Your task to perform on an android device: open device folders in google photos Image 0: 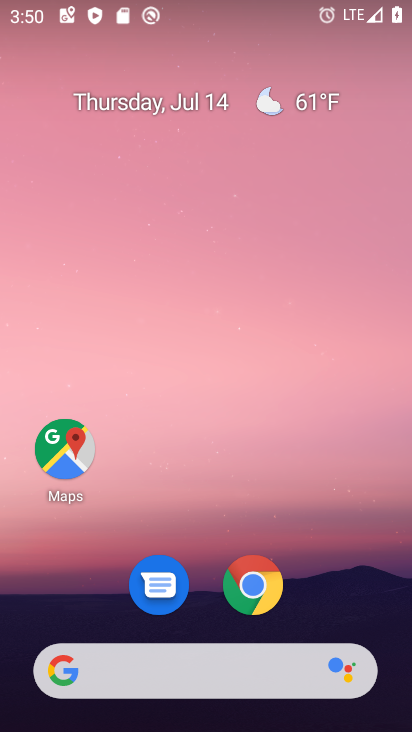
Step 0: drag from (344, 581) to (315, 48)
Your task to perform on an android device: open device folders in google photos Image 1: 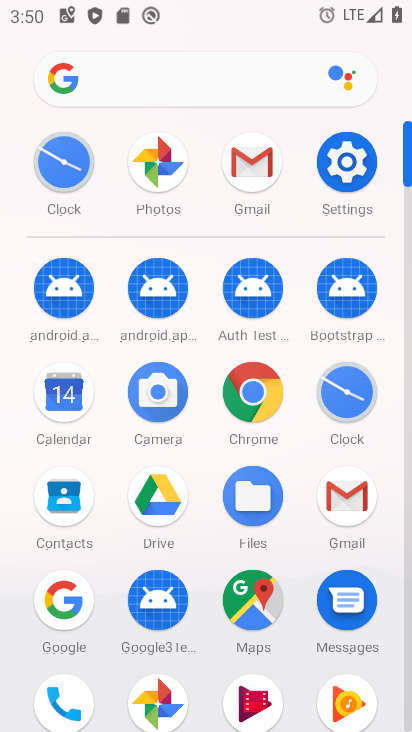
Step 1: click (158, 152)
Your task to perform on an android device: open device folders in google photos Image 2: 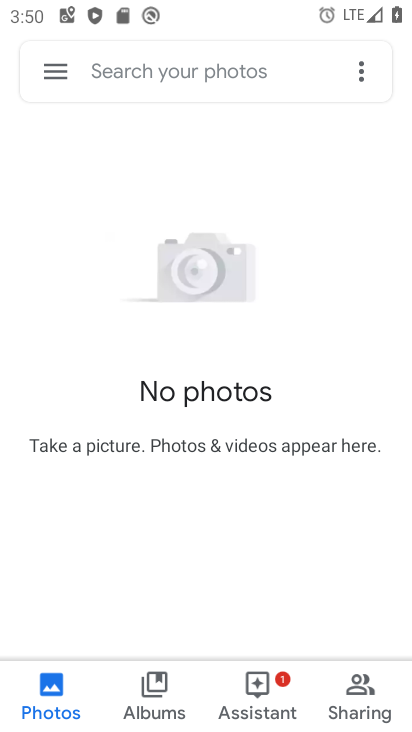
Step 2: click (50, 69)
Your task to perform on an android device: open device folders in google photos Image 3: 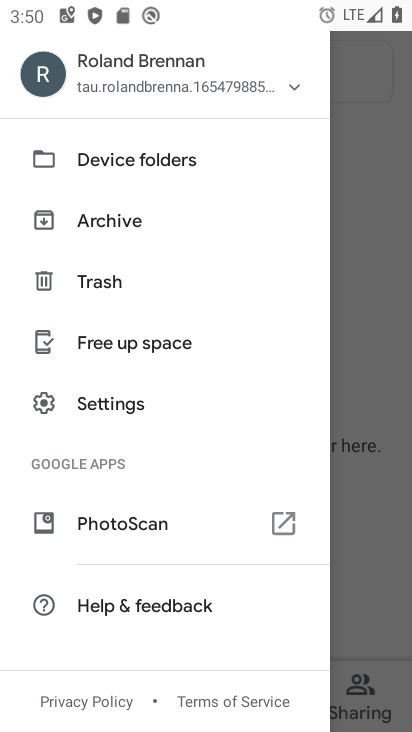
Step 3: click (96, 153)
Your task to perform on an android device: open device folders in google photos Image 4: 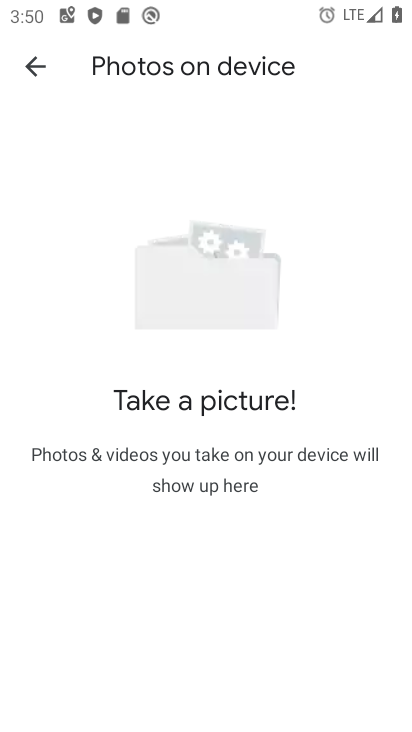
Step 4: task complete